Your task to perform on an android device: turn on showing notifications on the lock screen Image 0: 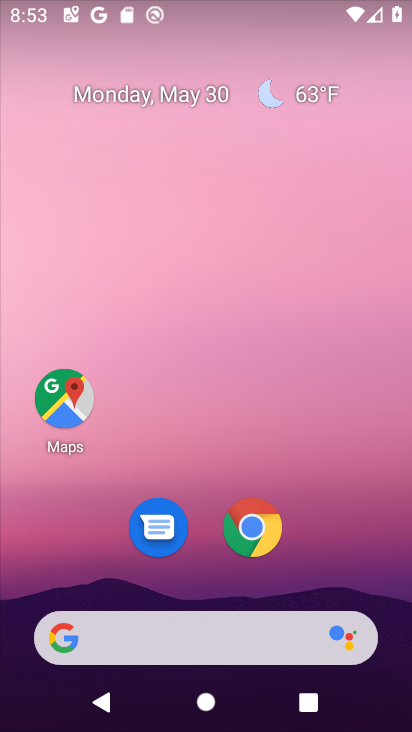
Step 0: drag from (334, 546) to (326, 217)
Your task to perform on an android device: turn on showing notifications on the lock screen Image 1: 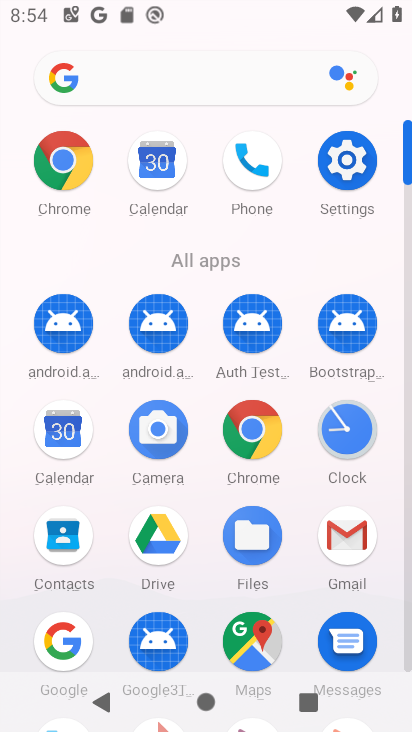
Step 1: click (246, 424)
Your task to perform on an android device: turn on showing notifications on the lock screen Image 2: 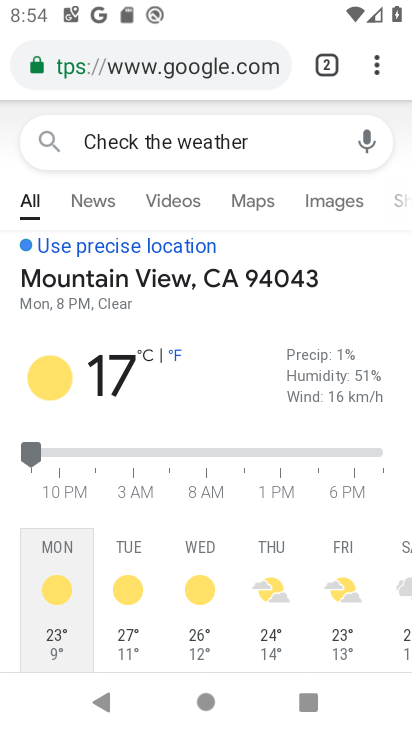
Step 2: press home button
Your task to perform on an android device: turn on showing notifications on the lock screen Image 3: 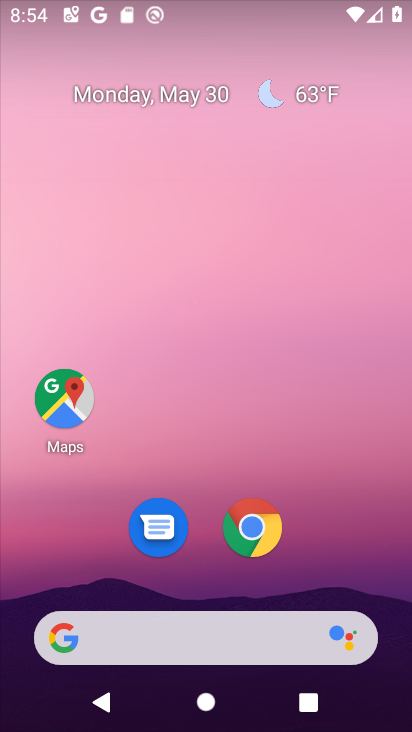
Step 3: drag from (348, 546) to (300, 237)
Your task to perform on an android device: turn on showing notifications on the lock screen Image 4: 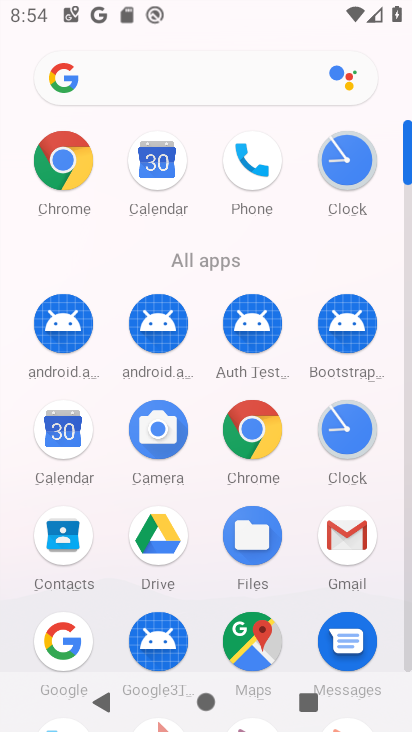
Step 4: drag from (218, 508) to (221, 285)
Your task to perform on an android device: turn on showing notifications on the lock screen Image 5: 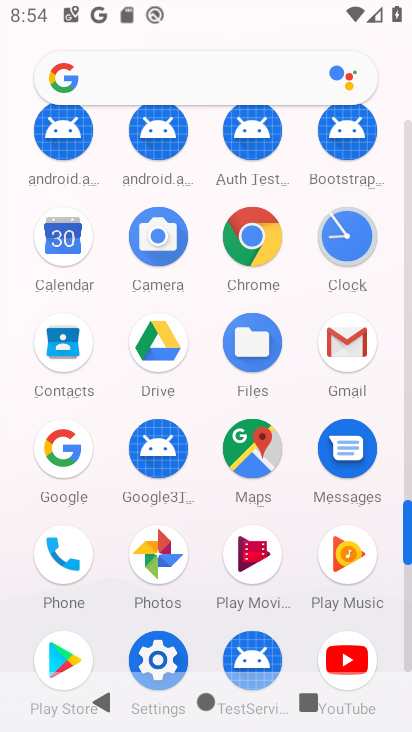
Step 5: click (166, 642)
Your task to perform on an android device: turn on showing notifications on the lock screen Image 6: 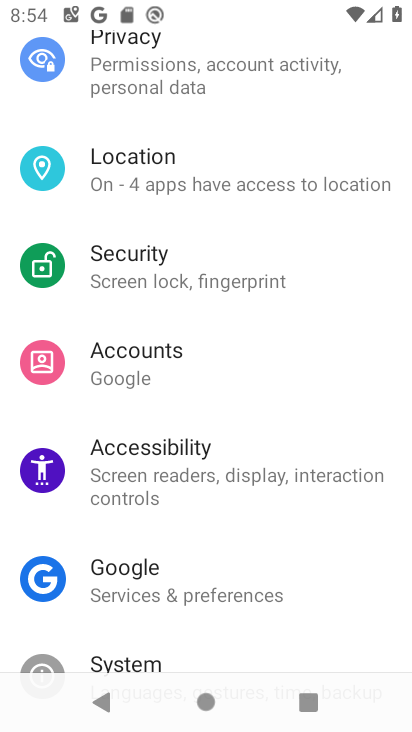
Step 6: drag from (280, 604) to (275, 264)
Your task to perform on an android device: turn on showing notifications on the lock screen Image 7: 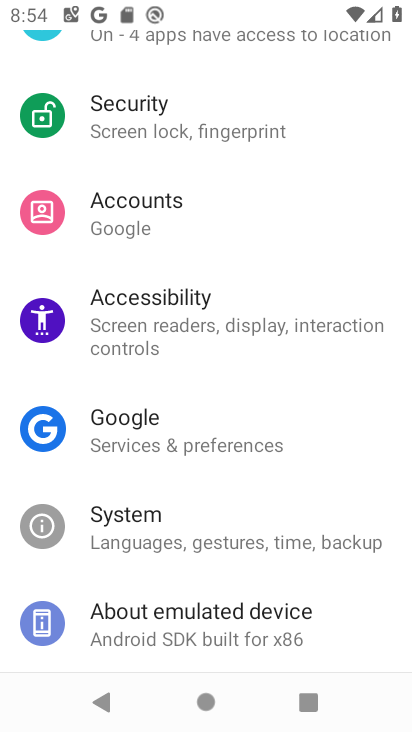
Step 7: drag from (249, 179) to (246, 638)
Your task to perform on an android device: turn on showing notifications on the lock screen Image 8: 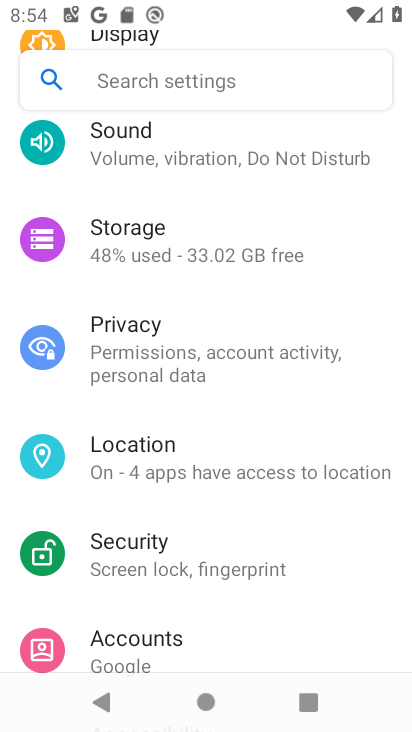
Step 8: drag from (222, 247) to (243, 611)
Your task to perform on an android device: turn on showing notifications on the lock screen Image 9: 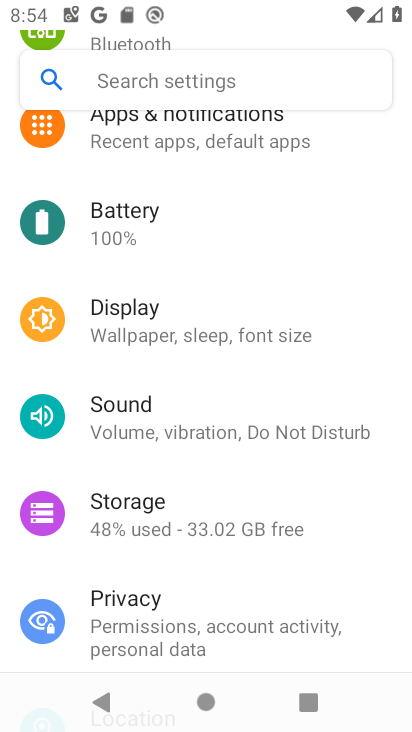
Step 9: drag from (235, 210) to (235, 575)
Your task to perform on an android device: turn on showing notifications on the lock screen Image 10: 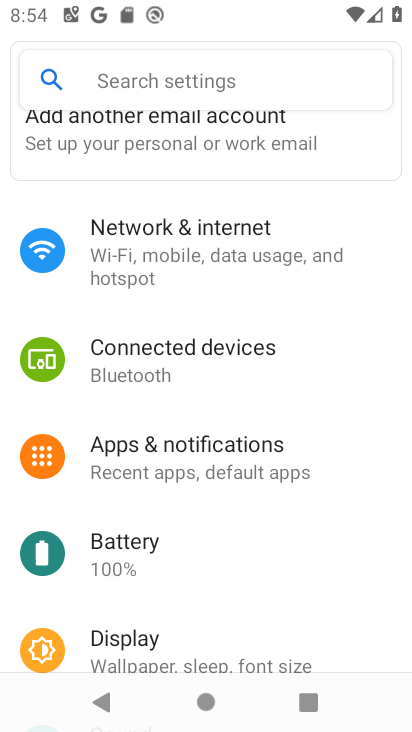
Step 10: click (233, 250)
Your task to perform on an android device: turn on showing notifications on the lock screen Image 11: 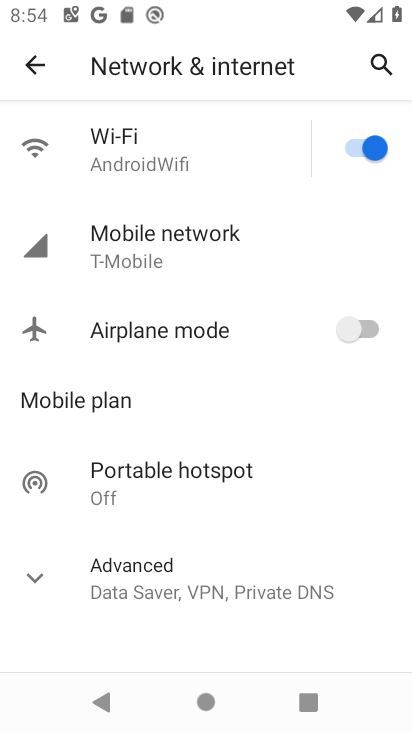
Step 11: drag from (256, 528) to (211, 287)
Your task to perform on an android device: turn on showing notifications on the lock screen Image 12: 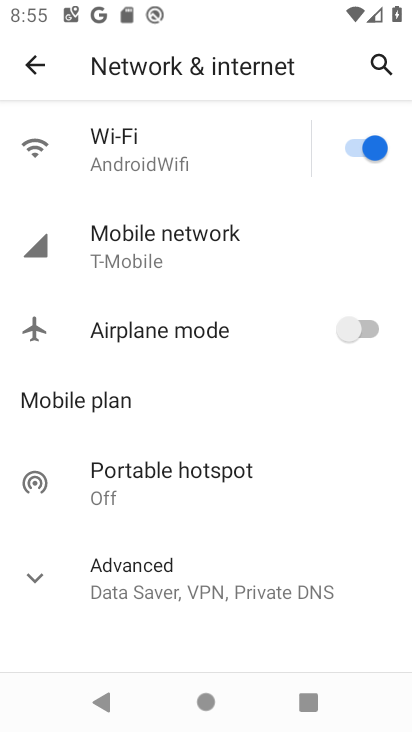
Step 12: drag from (240, 578) to (231, 293)
Your task to perform on an android device: turn on showing notifications on the lock screen Image 13: 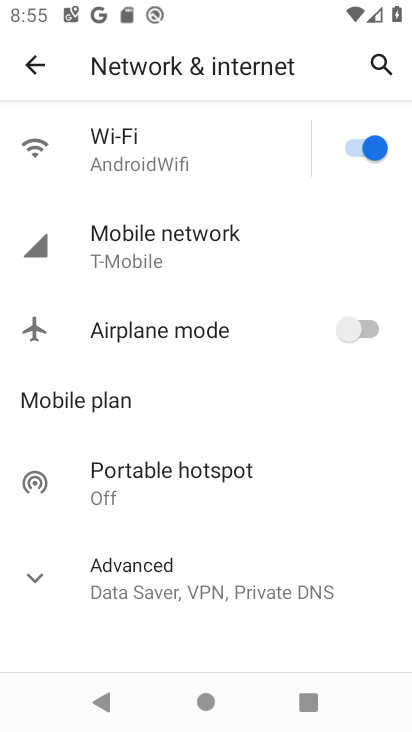
Step 13: click (38, 71)
Your task to perform on an android device: turn on showing notifications on the lock screen Image 14: 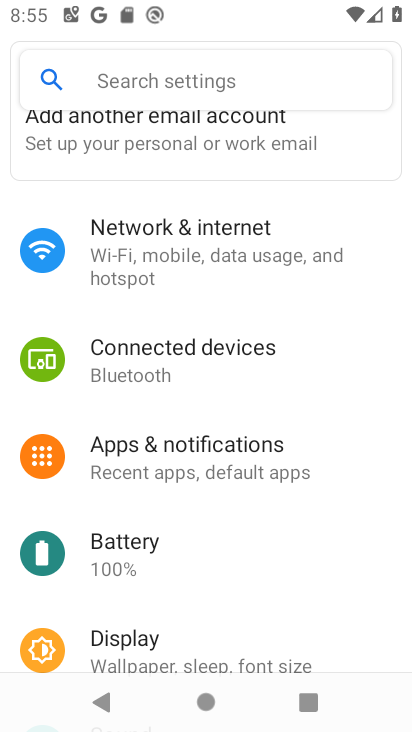
Step 14: click (191, 464)
Your task to perform on an android device: turn on showing notifications on the lock screen Image 15: 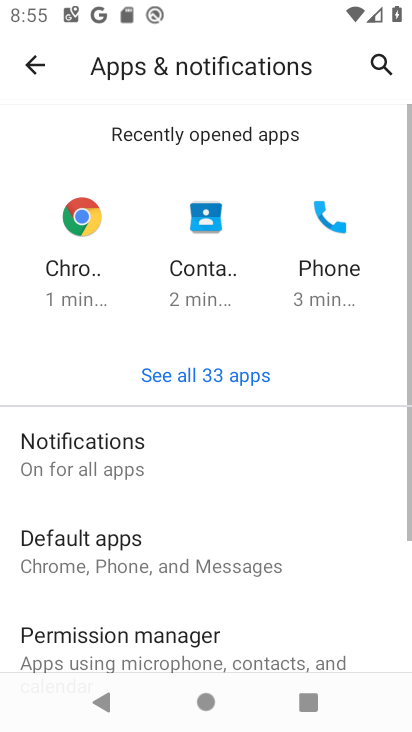
Step 15: drag from (195, 564) to (197, 429)
Your task to perform on an android device: turn on showing notifications on the lock screen Image 16: 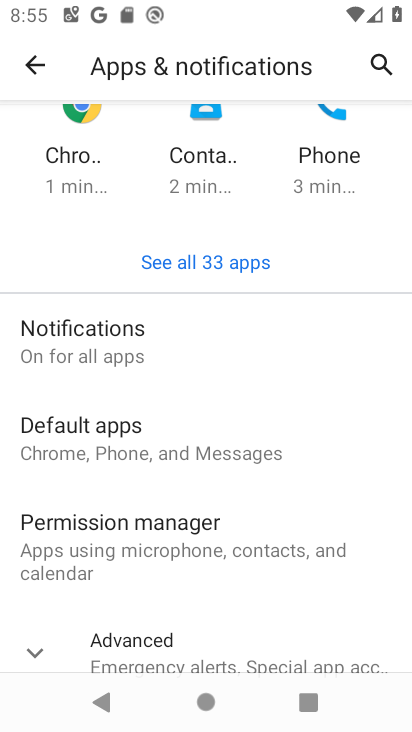
Step 16: click (109, 339)
Your task to perform on an android device: turn on showing notifications on the lock screen Image 17: 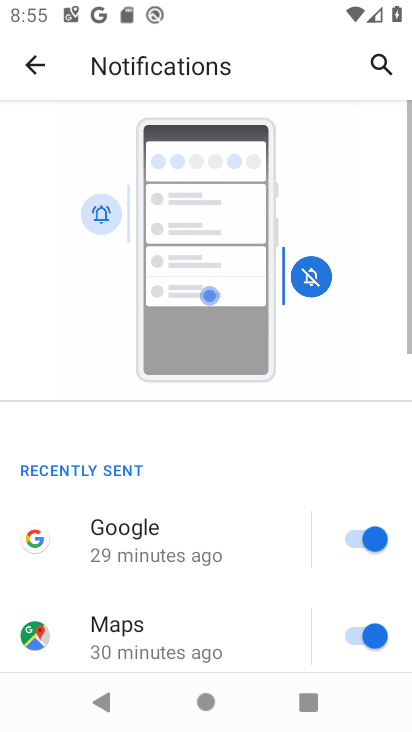
Step 17: drag from (184, 626) to (206, 277)
Your task to perform on an android device: turn on showing notifications on the lock screen Image 18: 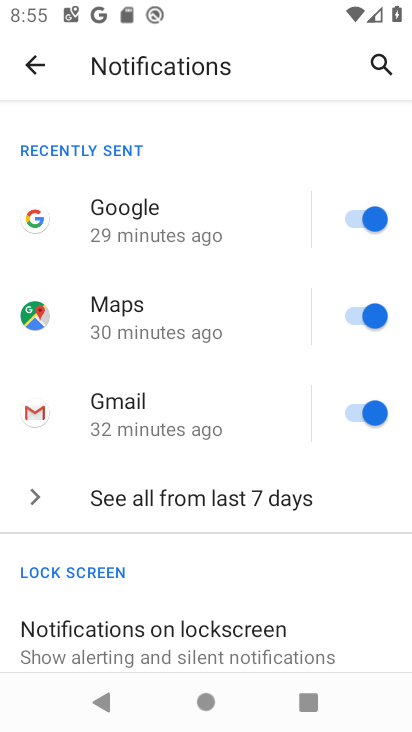
Step 18: drag from (237, 603) to (283, 310)
Your task to perform on an android device: turn on showing notifications on the lock screen Image 19: 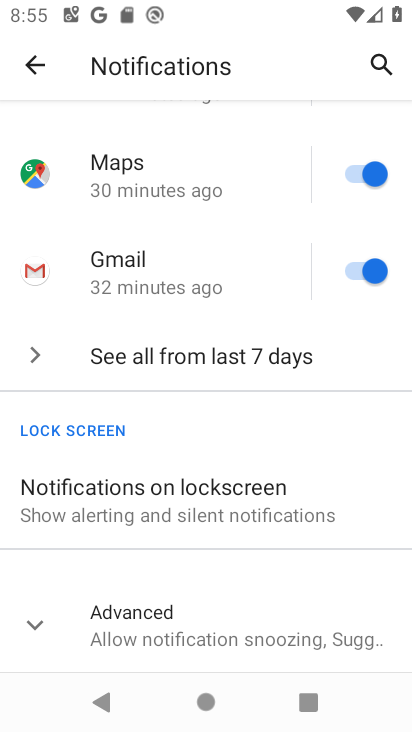
Step 19: click (198, 493)
Your task to perform on an android device: turn on showing notifications on the lock screen Image 20: 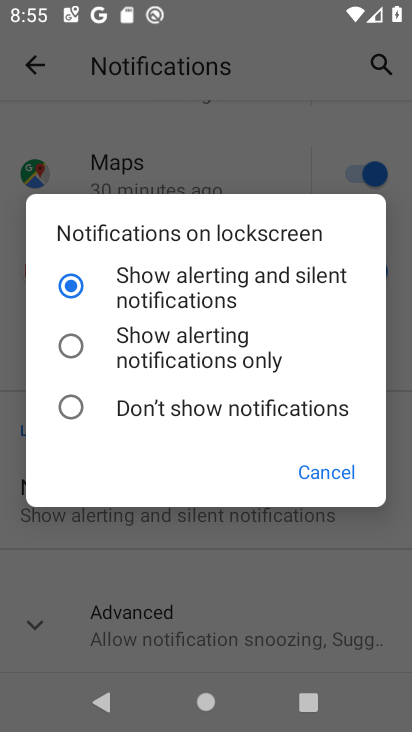
Step 20: click (159, 360)
Your task to perform on an android device: turn on showing notifications on the lock screen Image 21: 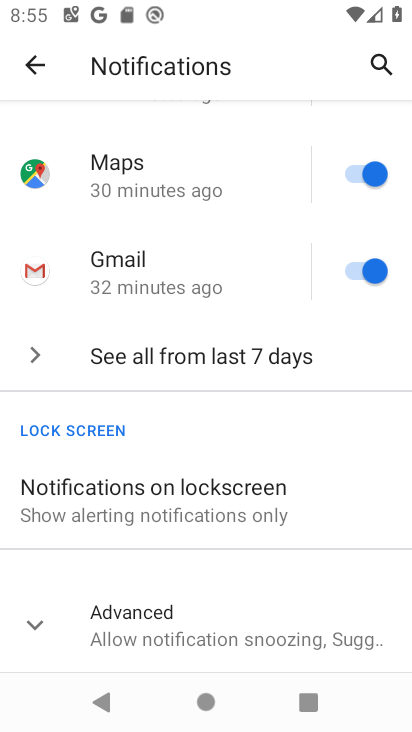
Step 21: task complete